Your task to perform on an android device: Do I have any events today? Image 0: 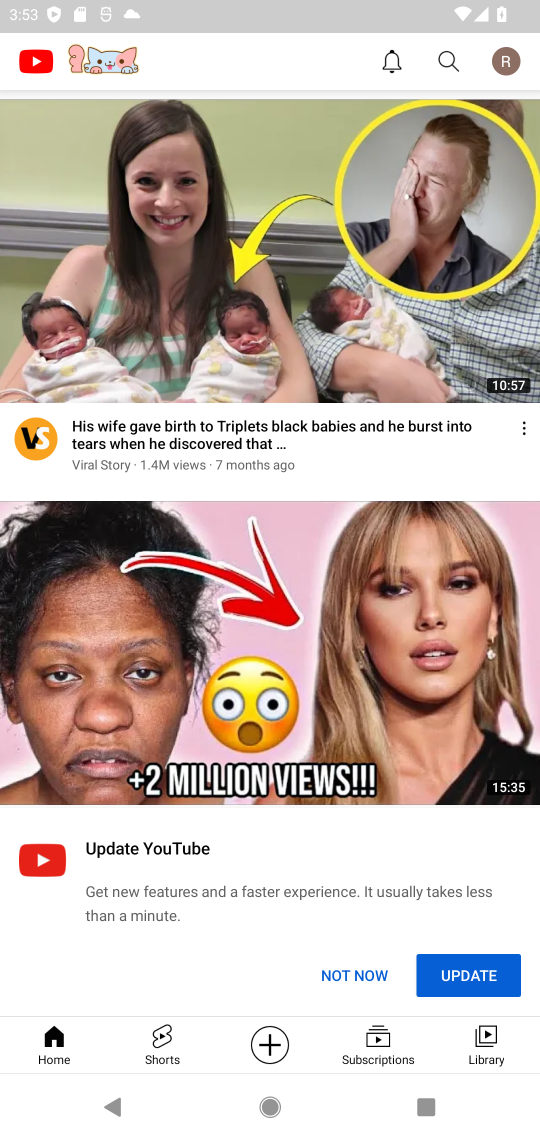
Step 0: press home button
Your task to perform on an android device: Do I have any events today? Image 1: 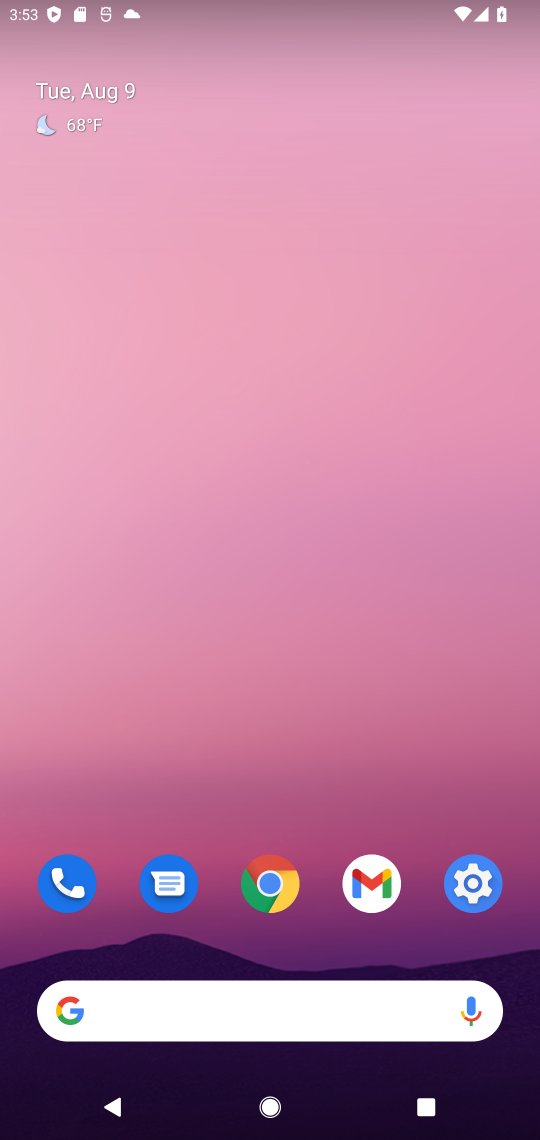
Step 1: drag from (389, 1035) to (291, 328)
Your task to perform on an android device: Do I have any events today? Image 2: 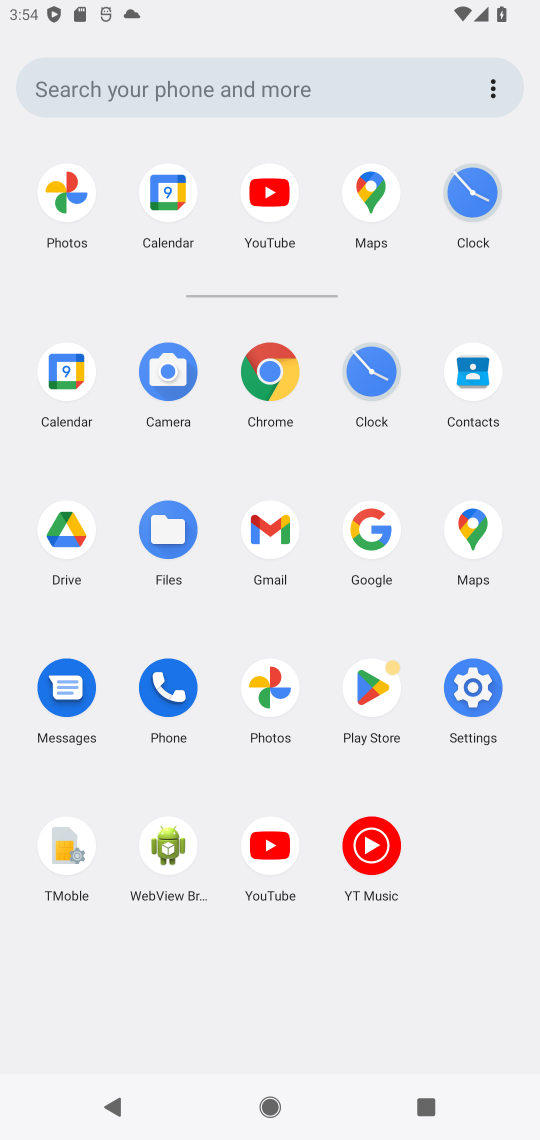
Step 2: click (69, 385)
Your task to perform on an android device: Do I have any events today? Image 3: 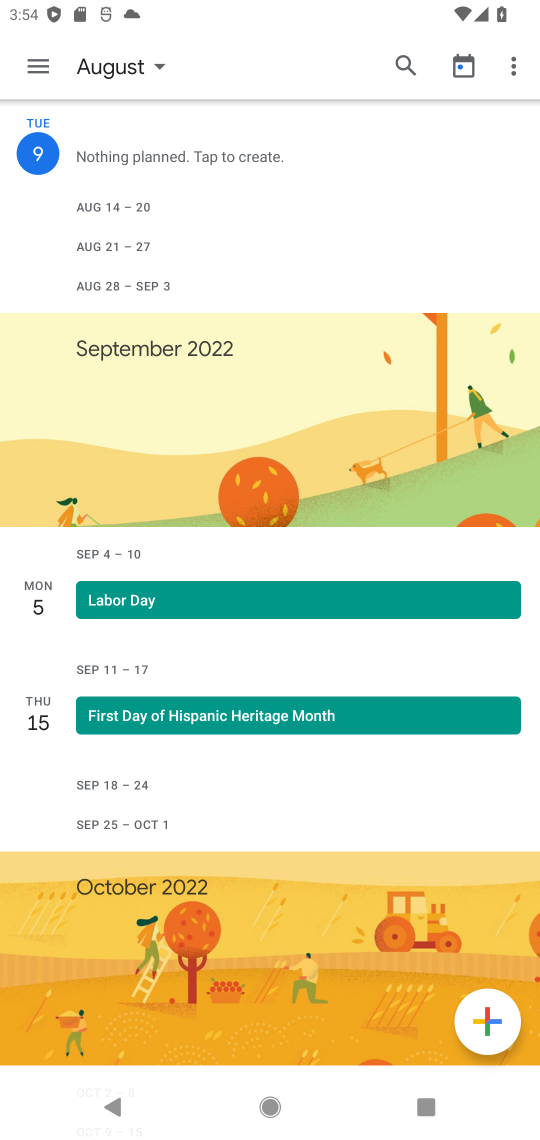
Step 3: click (27, 74)
Your task to perform on an android device: Do I have any events today? Image 4: 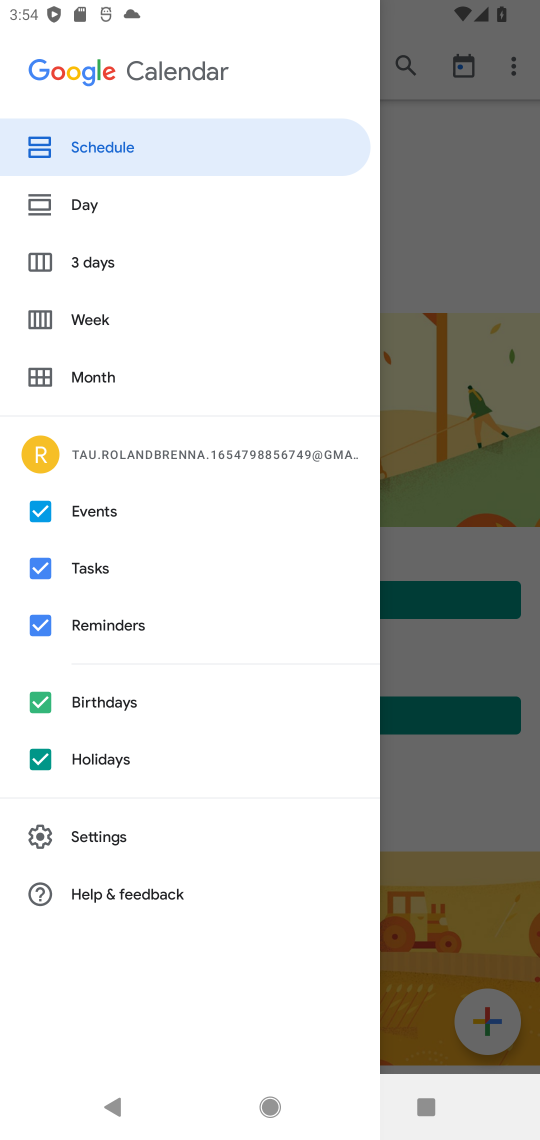
Step 4: click (88, 372)
Your task to perform on an android device: Do I have any events today? Image 5: 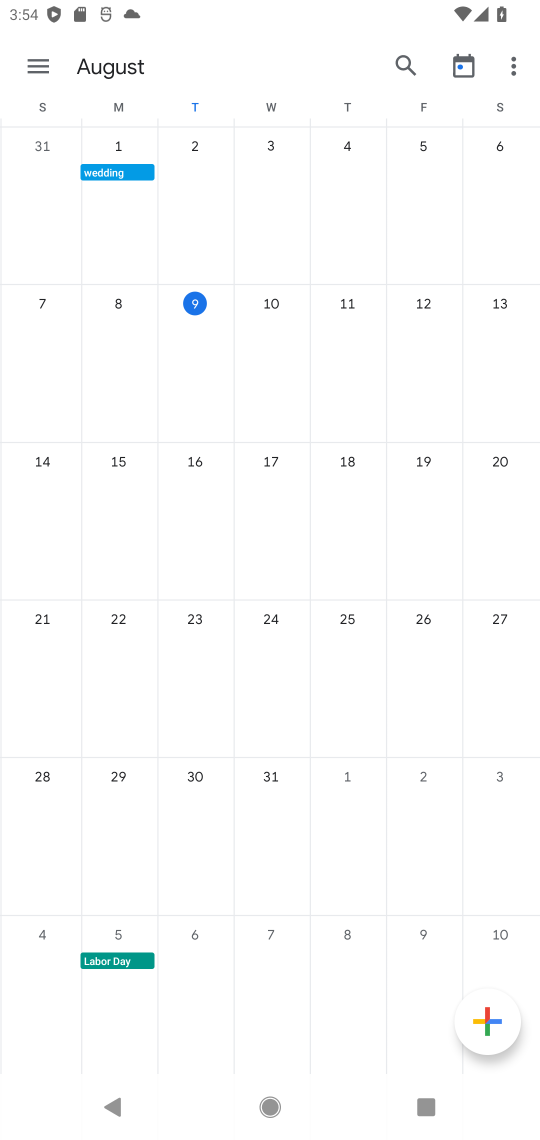
Step 5: click (192, 323)
Your task to perform on an android device: Do I have any events today? Image 6: 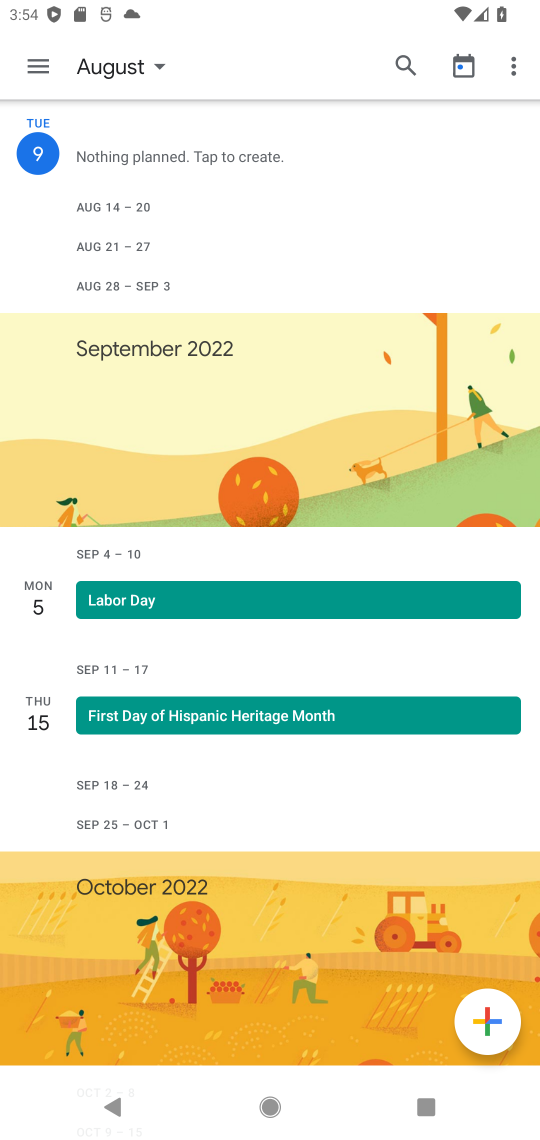
Step 6: task complete